Your task to perform on an android device: Open Amazon Image 0: 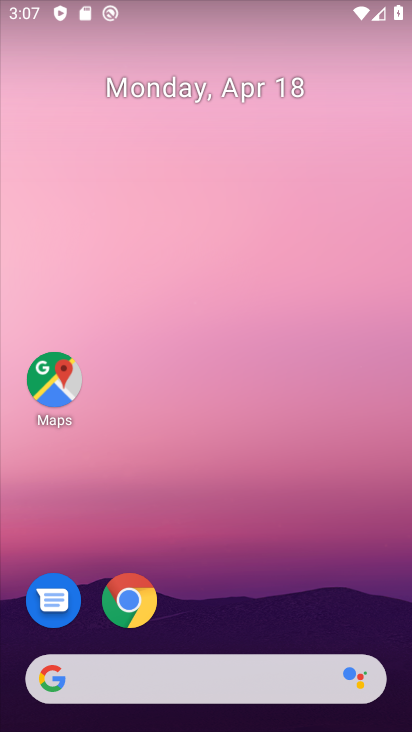
Step 0: click (116, 611)
Your task to perform on an android device: Open Amazon Image 1: 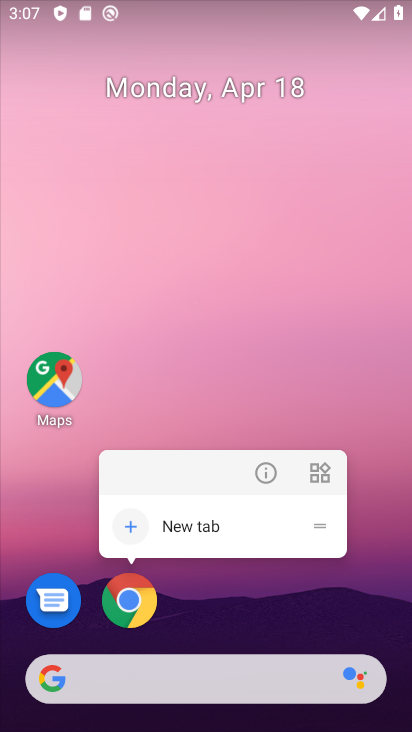
Step 1: click (125, 597)
Your task to perform on an android device: Open Amazon Image 2: 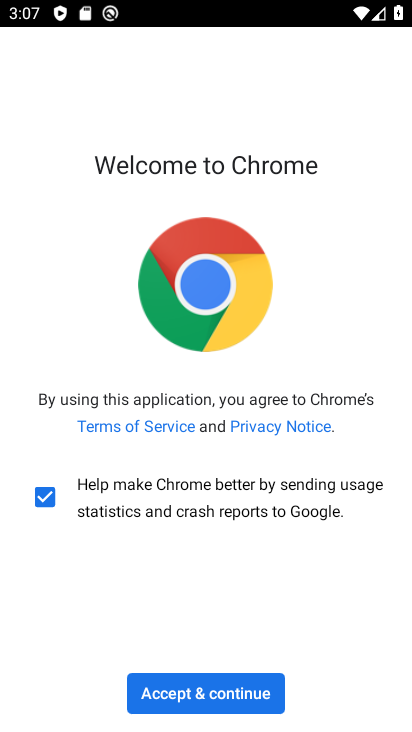
Step 2: click (240, 698)
Your task to perform on an android device: Open Amazon Image 3: 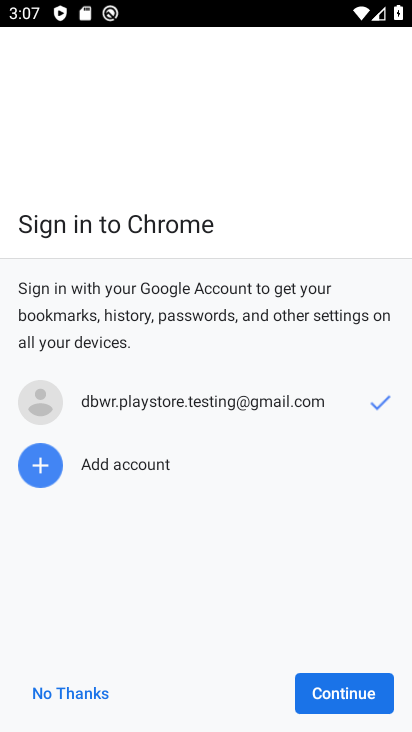
Step 3: click (367, 686)
Your task to perform on an android device: Open Amazon Image 4: 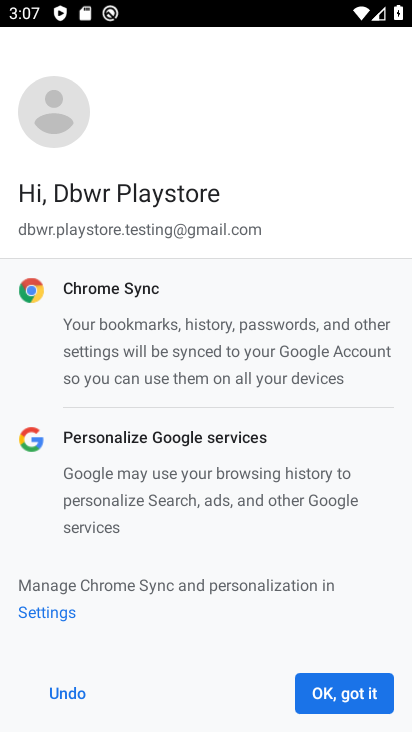
Step 4: click (367, 688)
Your task to perform on an android device: Open Amazon Image 5: 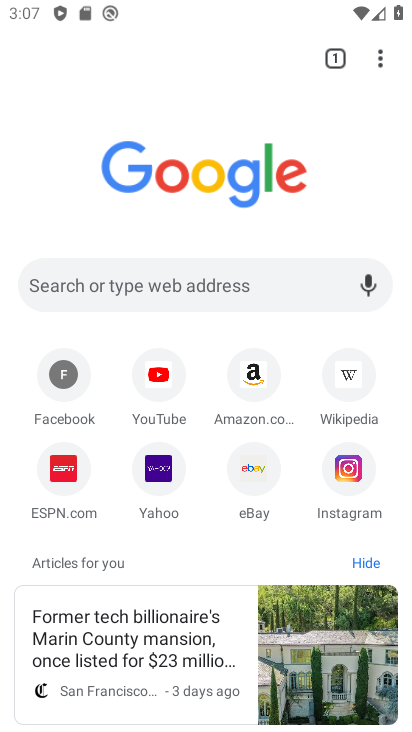
Step 5: click (374, 57)
Your task to perform on an android device: Open Amazon Image 6: 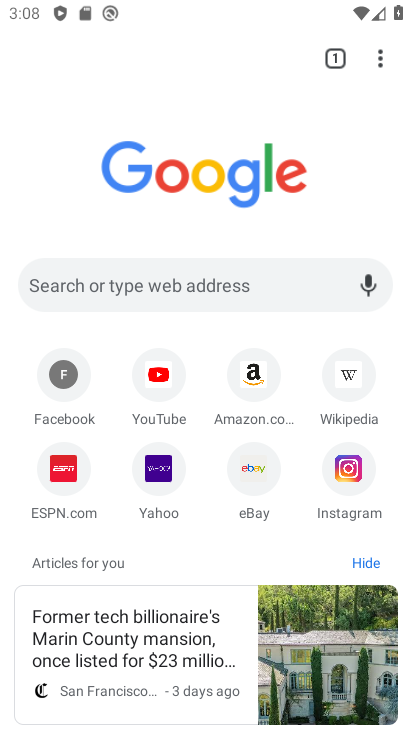
Step 6: click (240, 390)
Your task to perform on an android device: Open Amazon Image 7: 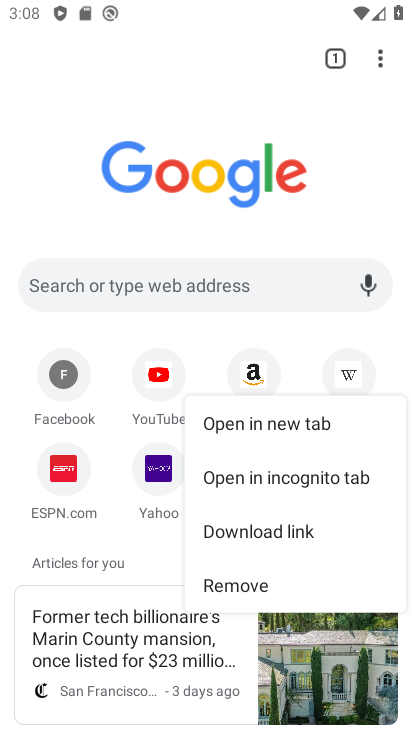
Step 7: click (211, 422)
Your task to perform on an android device: Open Amazon Image 8: 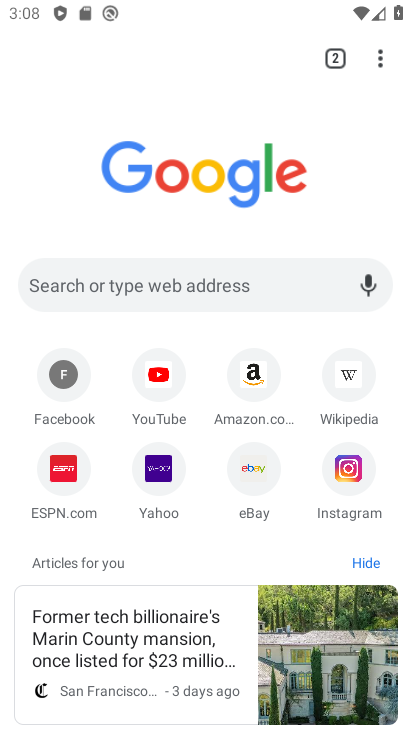
Step 8: click (250, 360)
Your task to perform on an android device: Open Amazon Image 9: 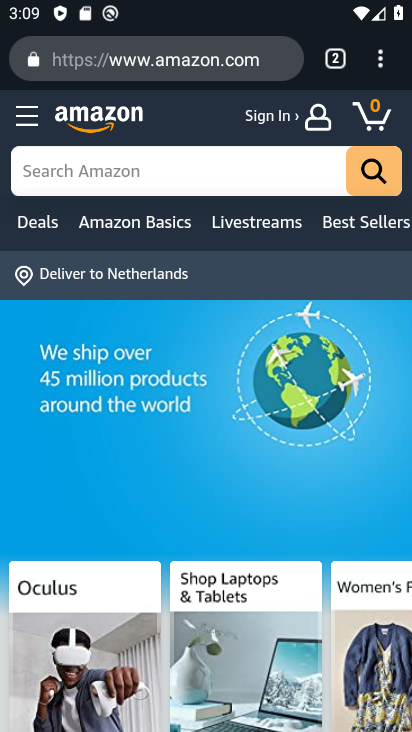
Step 9: click (409, 383)
Your task to perform on an android device: Open Amazon Image 10: 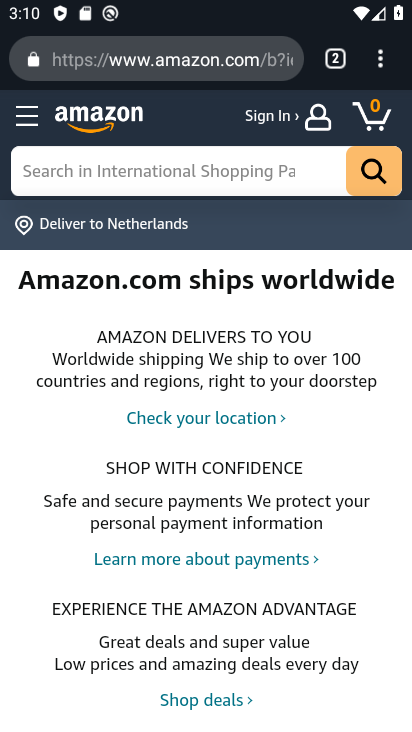
Step 10: task complete